Your task to perform on an android device: read, delete, or share a saved page in the chrome app Image 0: 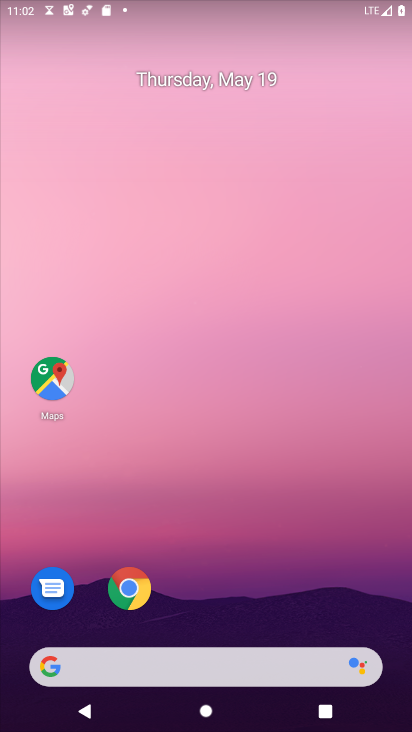
Step 0: click (129, 589)
Your task to perform on an android device: read, delete, or share a saved page in the chrome app Image 1: 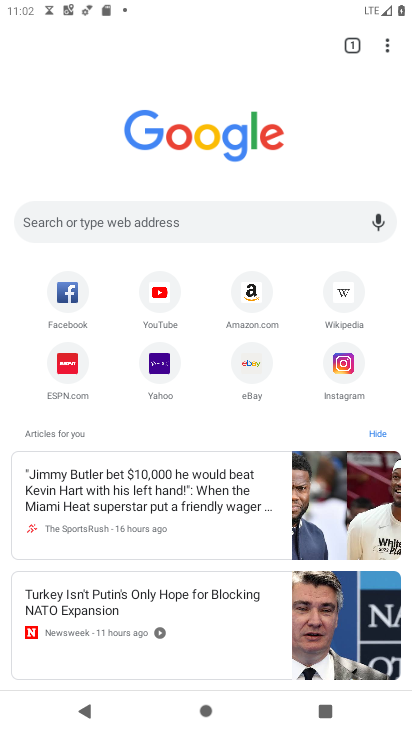
Step 1: click (397, 44)
Your task to perform on an android device: read, delete, or share a saved page in the chrome app Image 2: 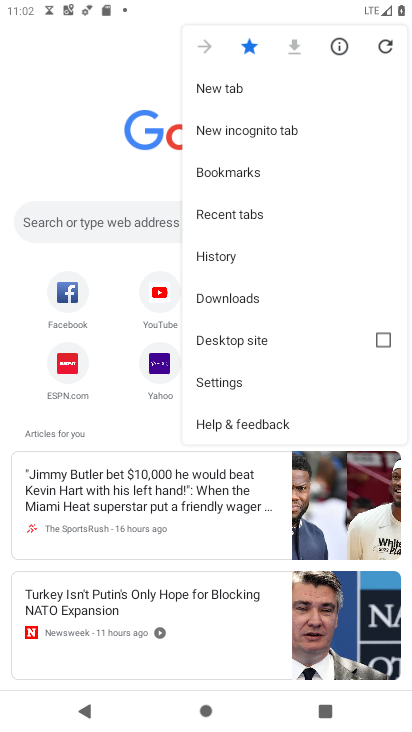
Step 2: click (255, 374)
Your task to perform on an android device: read, delete, or share a saved page in the chrome app Image 3: 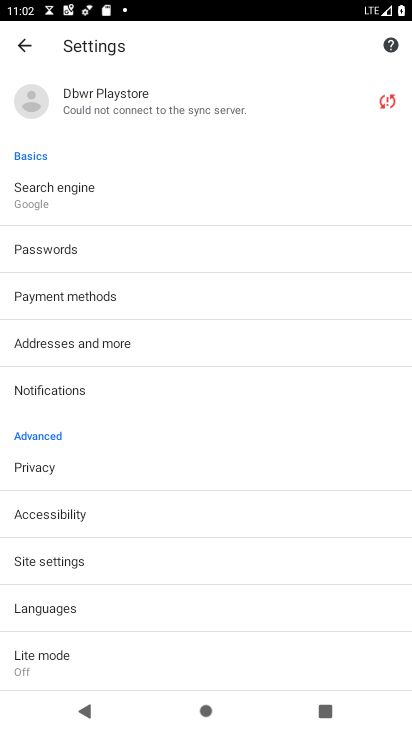
Step 3: click (20, 47)
Your task to perform on an android device: read, delete, or share a saved page in the chrome app Image 4: 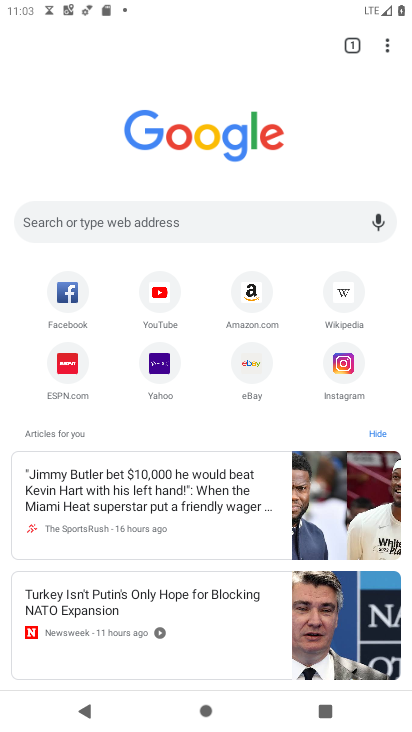
Step 4: click (379, 45)
Your task to perform on an android device: read, delete, or share a saved page in the chrome app Image 5: 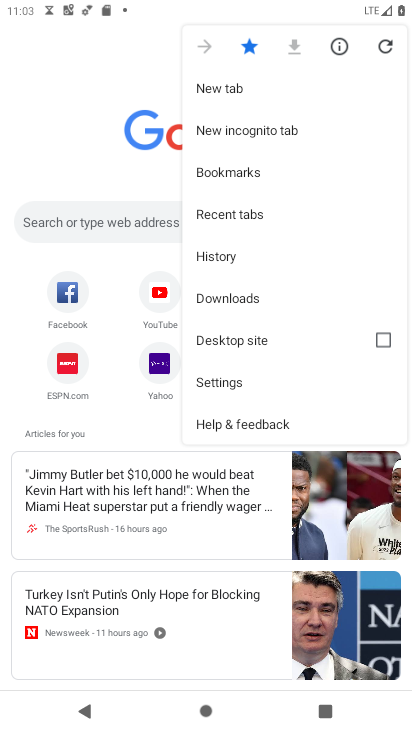
Step 5: click (250, 284)
Your task to perform on an android device: read, delete, or share a saved page in the chrome app Image 6: 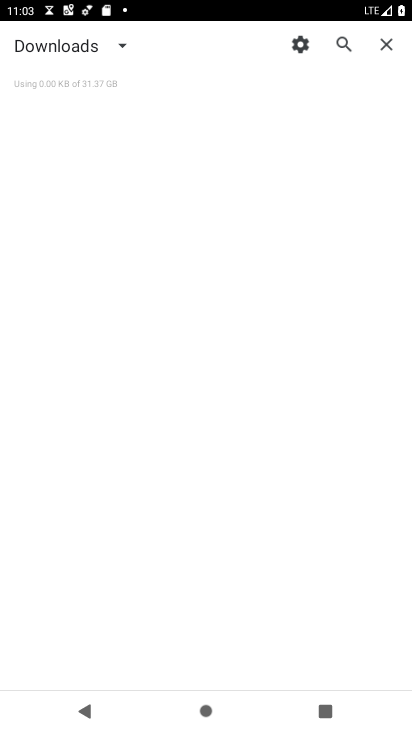
Step 6: click (76, 53)
Your task to perform on an android device: read, delete, or share a saved page in the chrome app Image 7: 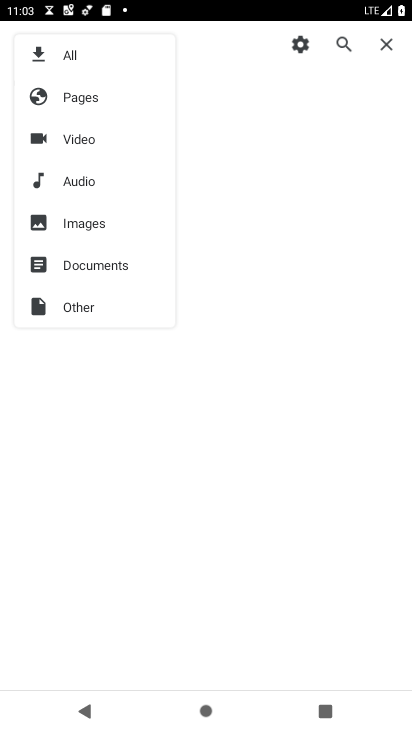
Step 7: click (93, 79)
Your task to perform on an android device: read, delete, or share a saved page in the chrome app Image 8: 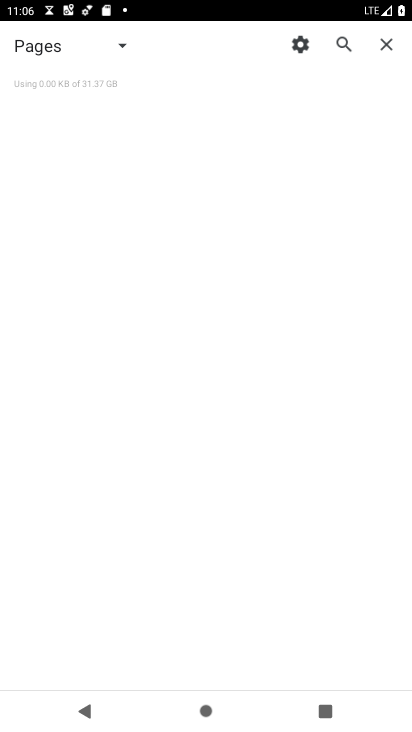
Step 8: task complete